Your task to perform on an android device: turn off smart reply in the gmail app Image 0: 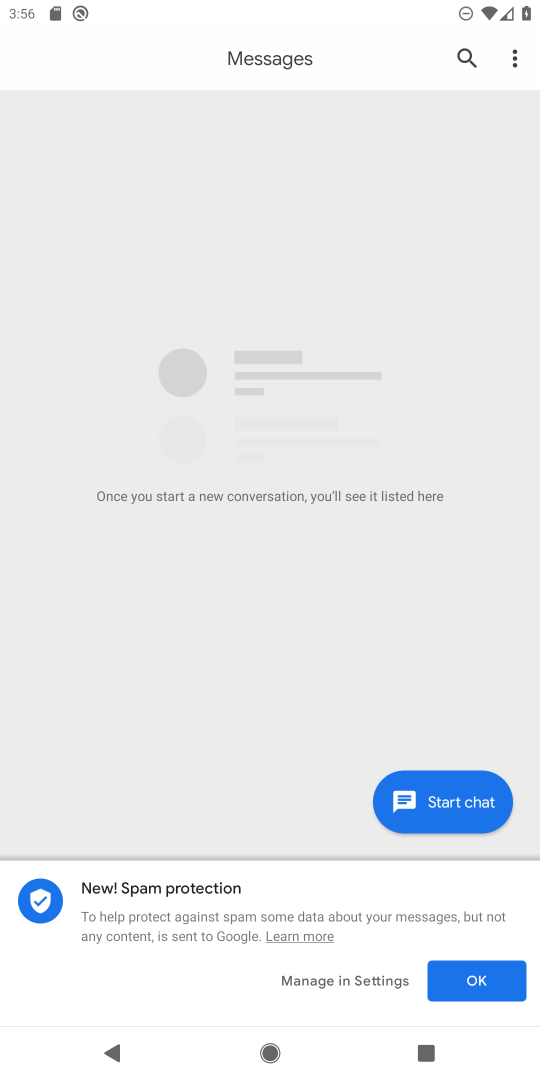
Step 0: press home button
Your task to perform on an android device: turn off smart reply in the gmail app Image 1: 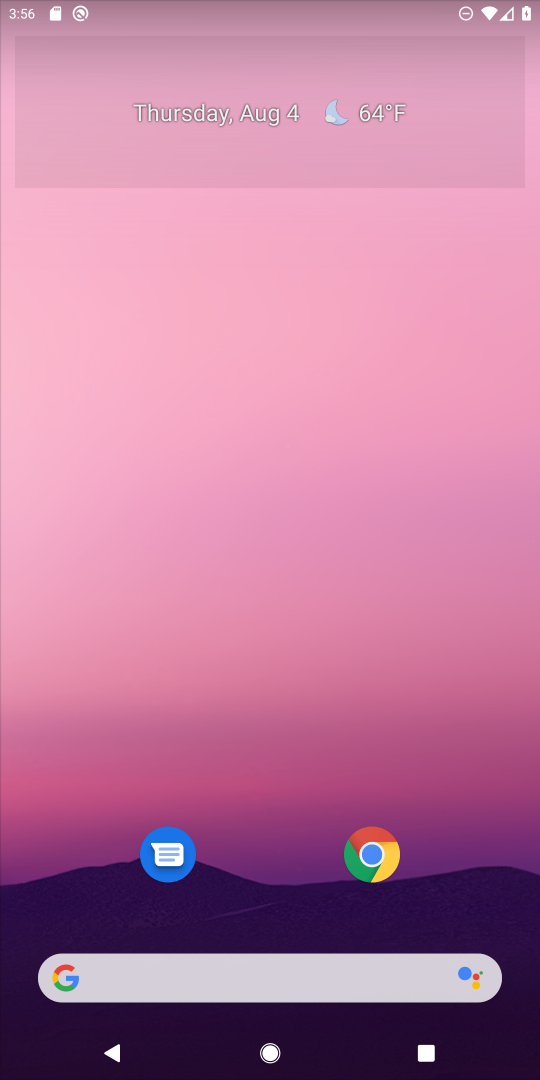
Step 1: drag from (267, 830) to (280, 367)
Your task to perform on an android device: turn off smart reply in the gmail app Image 2: 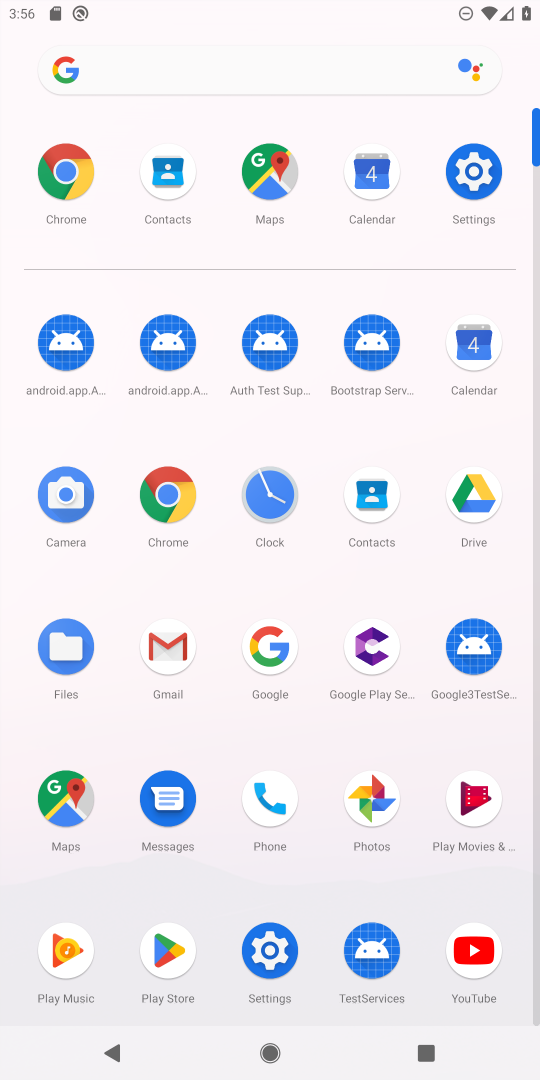
Step 2: click (152, 642)
Your task to perform on an android device: turn off smart reply in the gmail app Image 3: 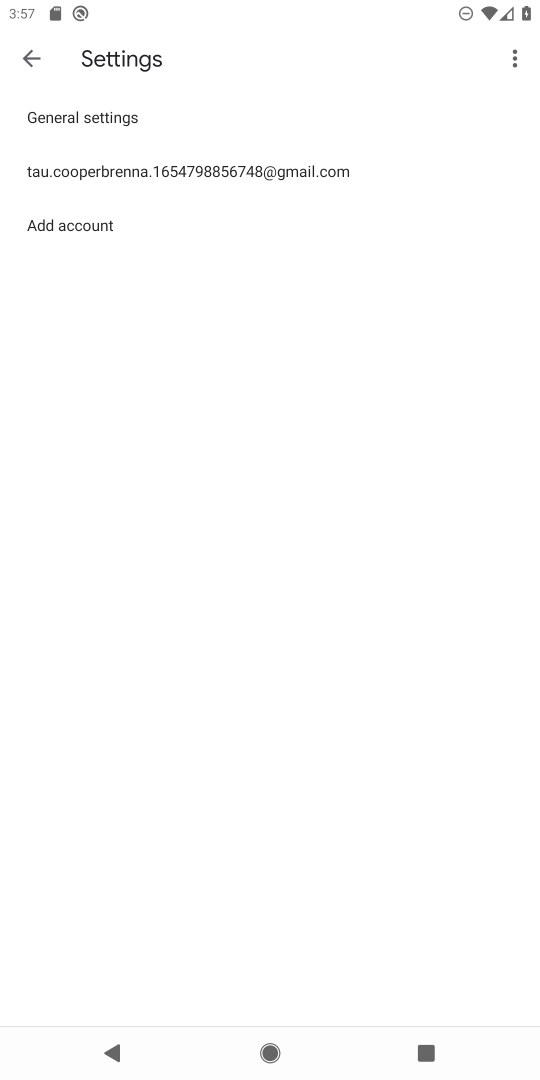
Step 3: press home button
Your task to perform on an android device: turn off smart reply in the gmail app Image 4: 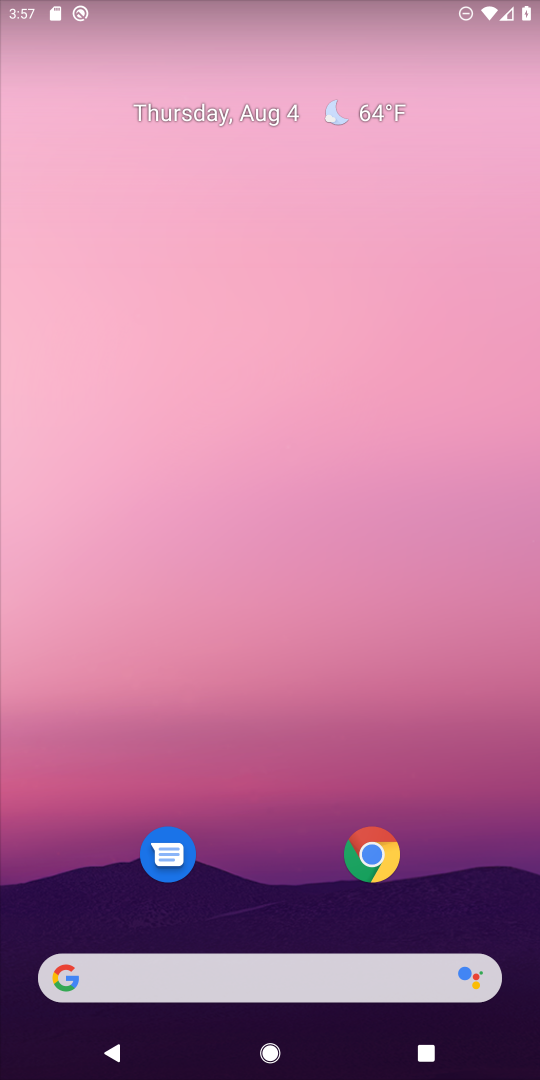
Step 4: drag from (255, 708) to (261, 305)
Your task to perform on an android device: turn off smart reply in the gmail app Image 5: 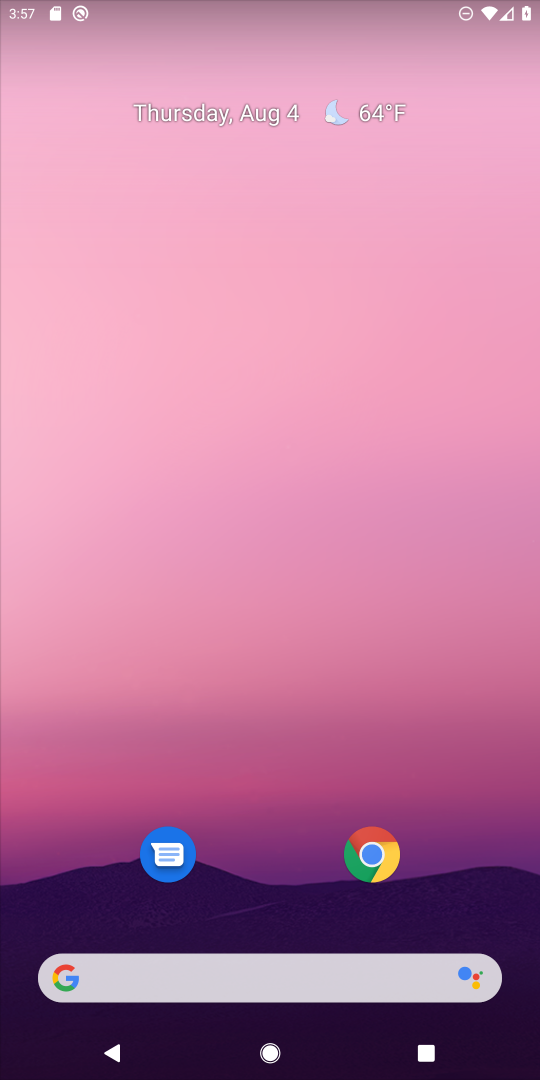
Step 5: drag from (228, 770) to (269, 69)
Your task to perform on an android device: turn off smart reply in the gmail app Image 6: 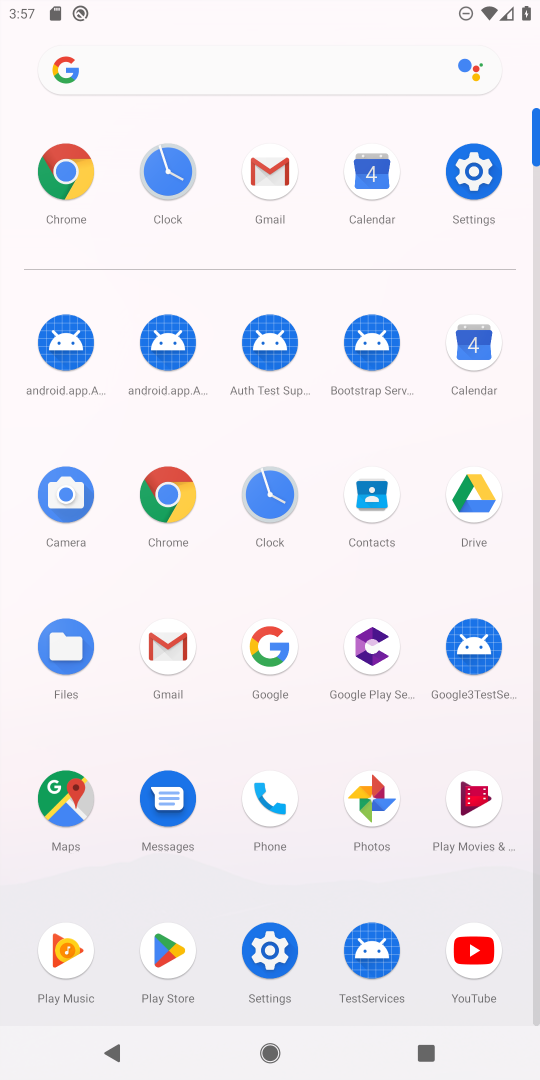
Step 6: click (272, 179)
Your task to perform on an android device: turn off smart reply in the gmail app Image 7: 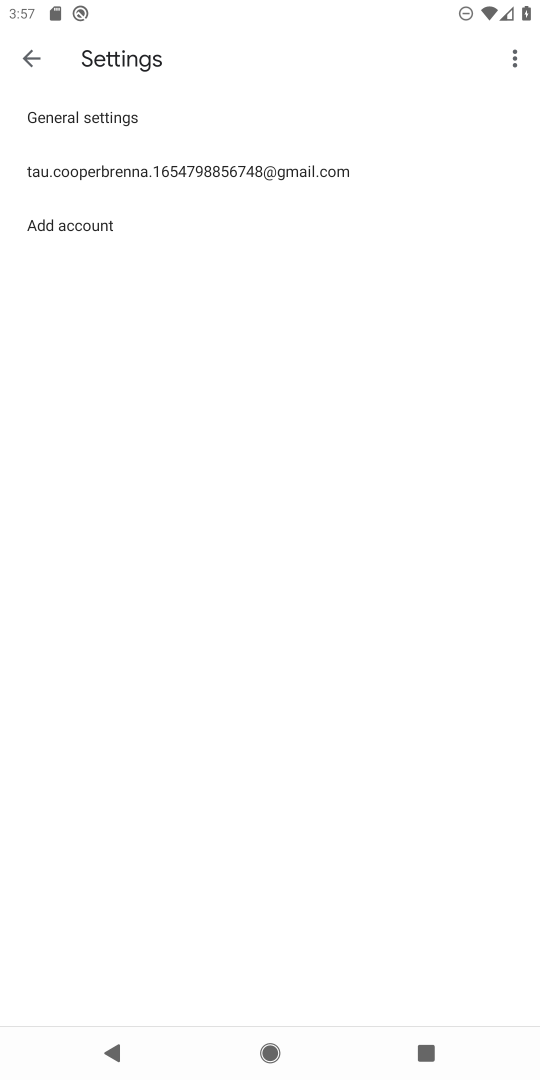
Step 7: task complete